Your task to perform on an android device: check data usage Image 0: 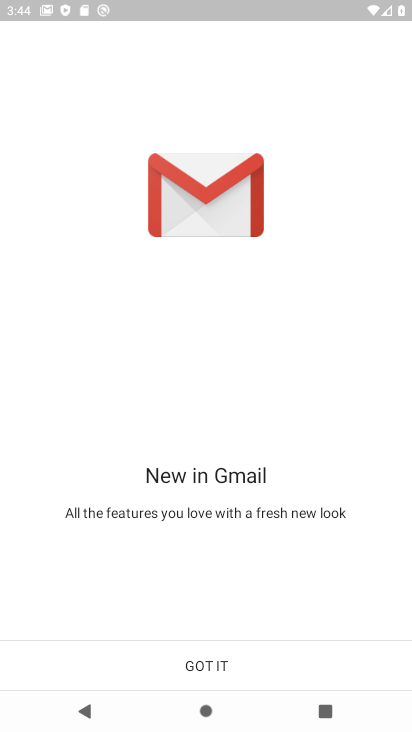
Step 0: press home button
Your task to perform on an android device: check data usage Image 1: 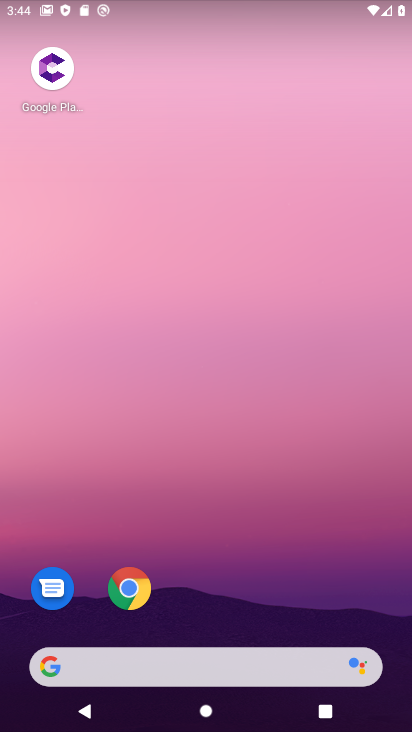
Step 1: drag from (263, 616) to (257, 82)
Your task to perform on an android device: check data usage Image 2: 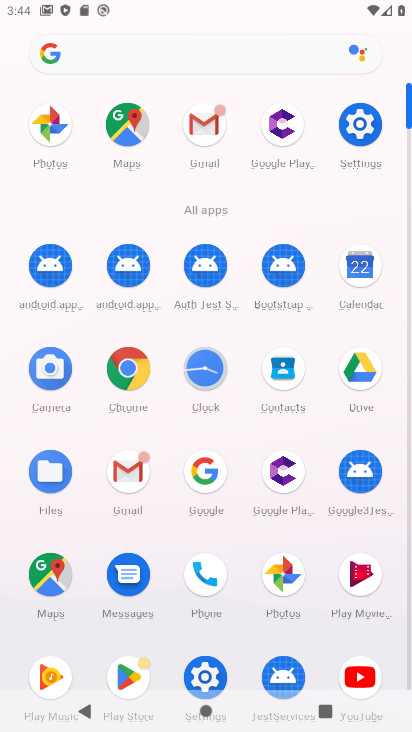
Step 2: click (368, 134)
Your task to perform on an android device: check data usage Image 3: 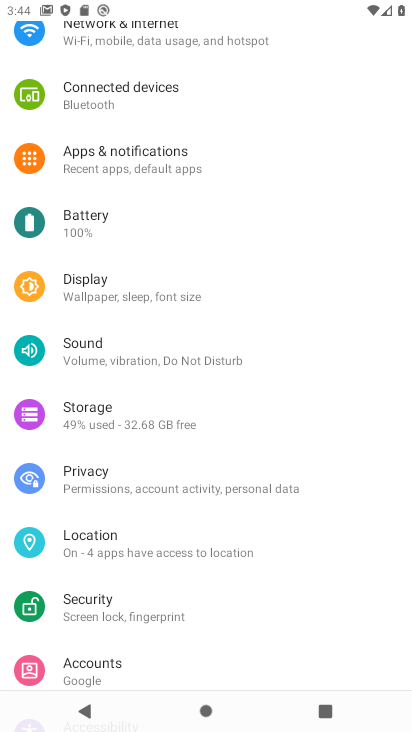
Step 3: drag from (273, 146) to (207, 652)
Your task to perform on an android device: check data usage Image 4: 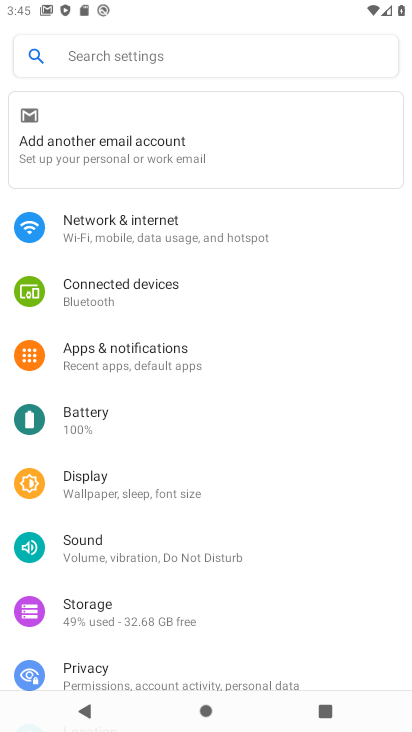
Step 4: click (178, 253)
Your task to perform on an android device: check data usage Image 5: 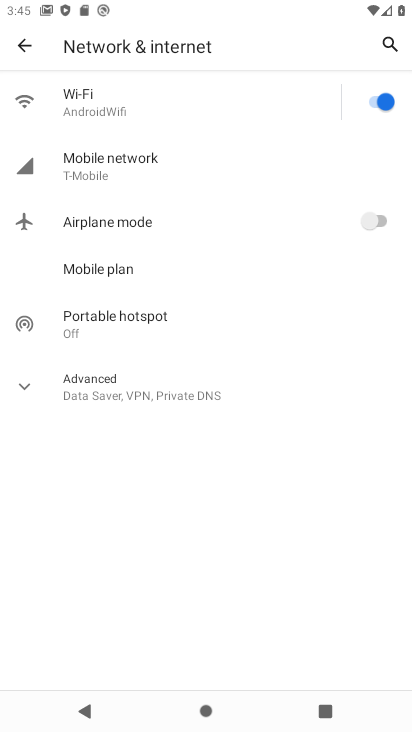
Step 5: click (161, 102)
Your task to perform on an android device: check data usage Image 6: 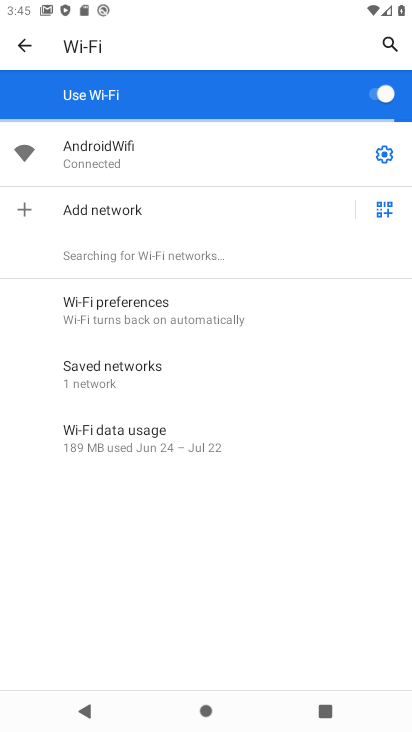
Step 6: click (214, 440)
Your task to perform on an android device: check data usage Image 7: 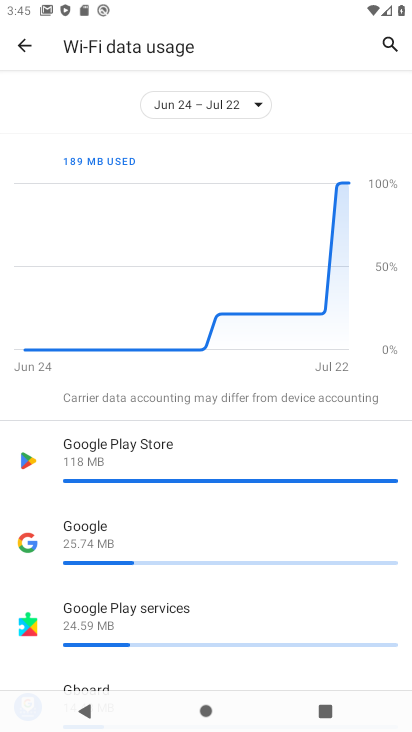
Step 7: task complete